Your task to perform on an android device: open chrome and create a bookmark for the current page Image 0: 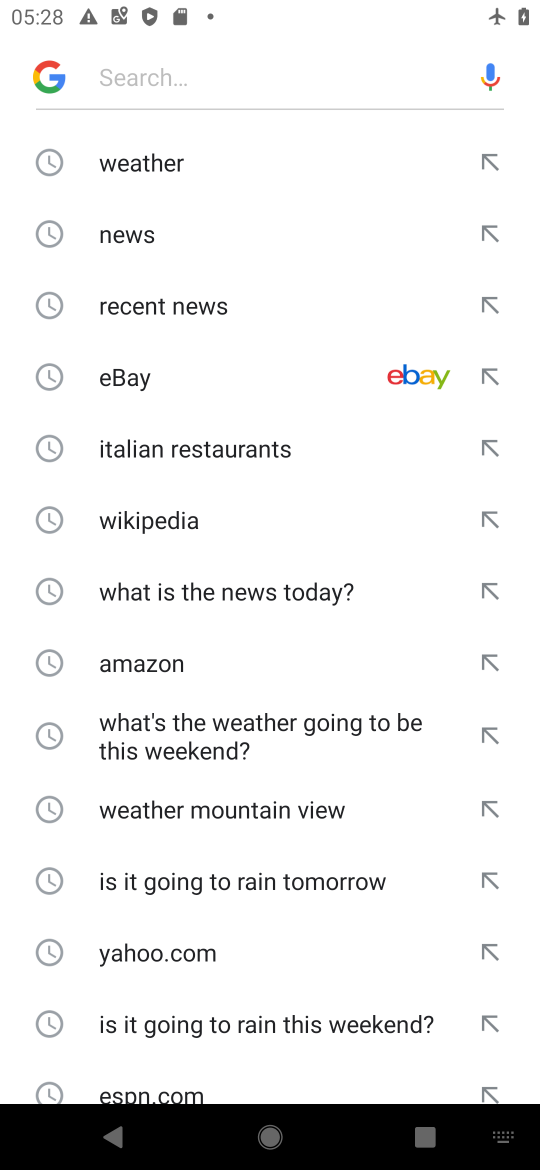
Step 0: press back button
Your task to perform on an android device: open chrome and create a bookmark for the current page Image 1: 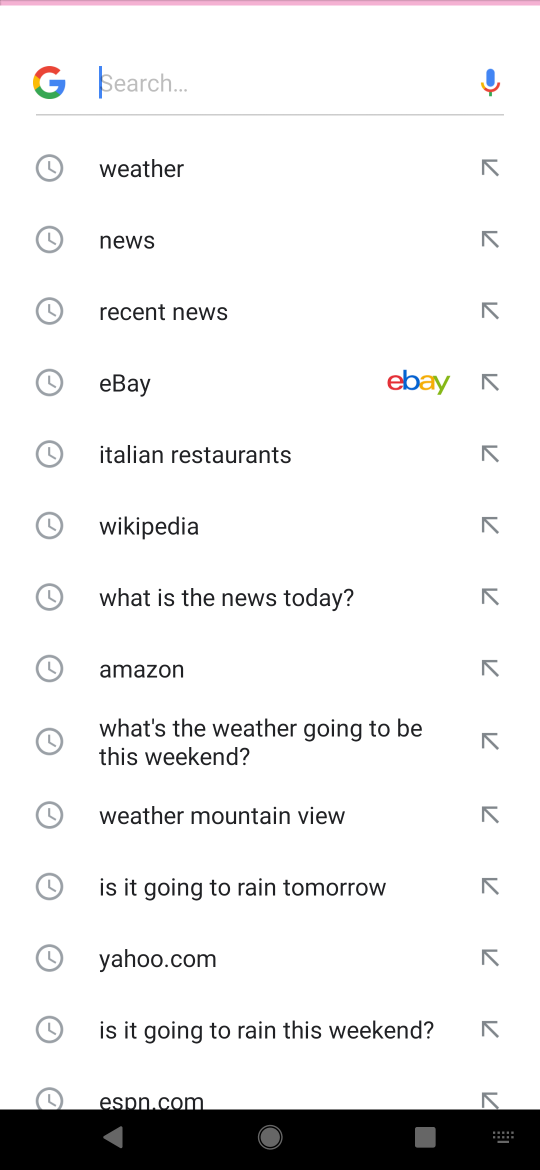
Step 1: press back button
Your task to perform on an android device: open chrome and create a bookmark for the current page Image 2: 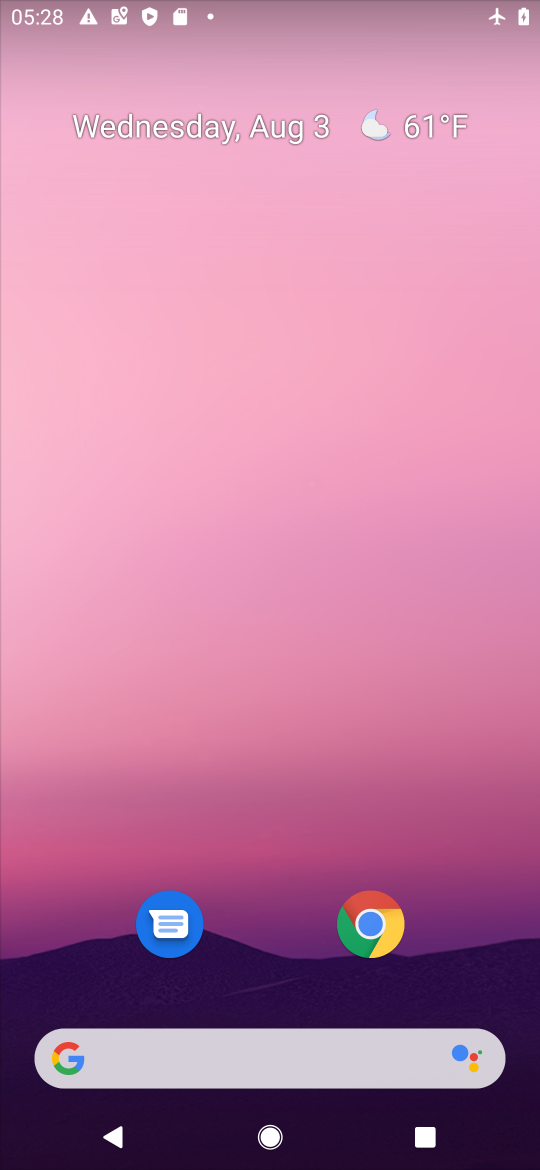
Step 2: click (380, 910)
Your task to perform on an android device: open chrome and create a bookmark for the current page Image 3: 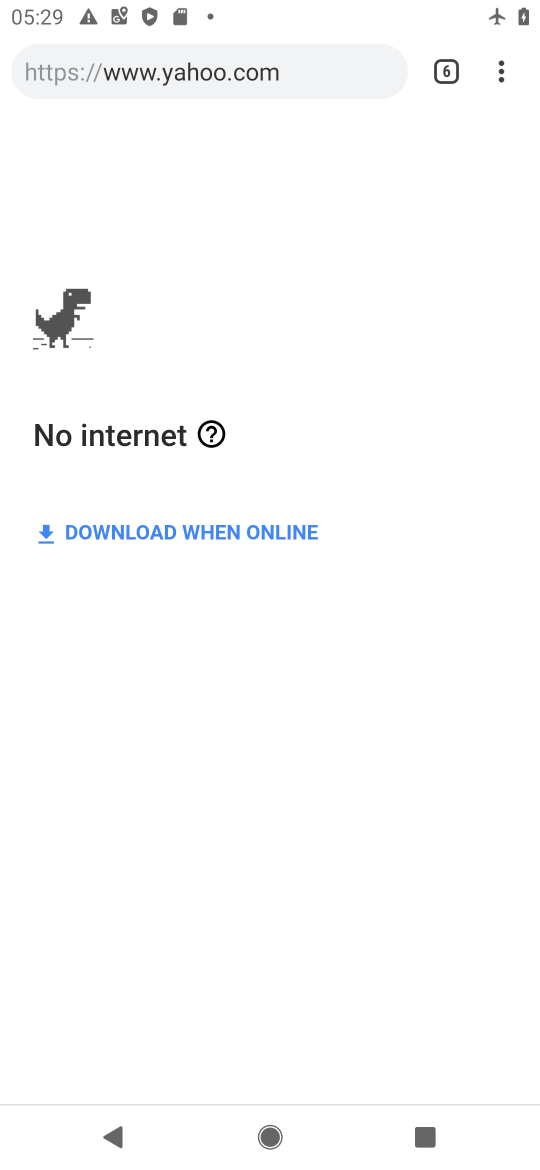
Step 3: task complete